Your task to perform on an android device: Open Yahoo.com Image 0: 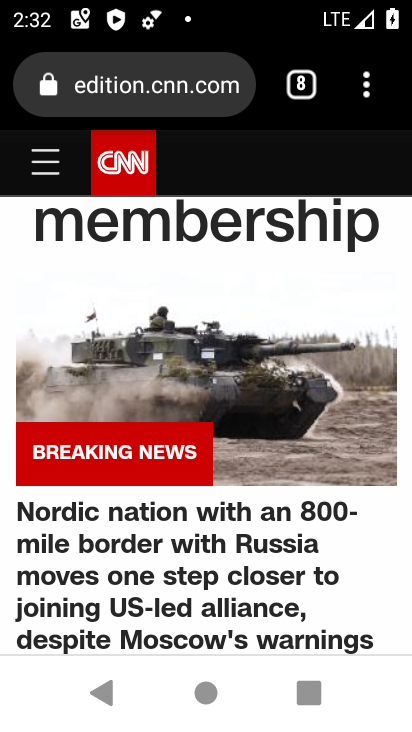
Step 0: click (315, 79)
Your task to perform on an android device: Open Yahoo.com Image 1: 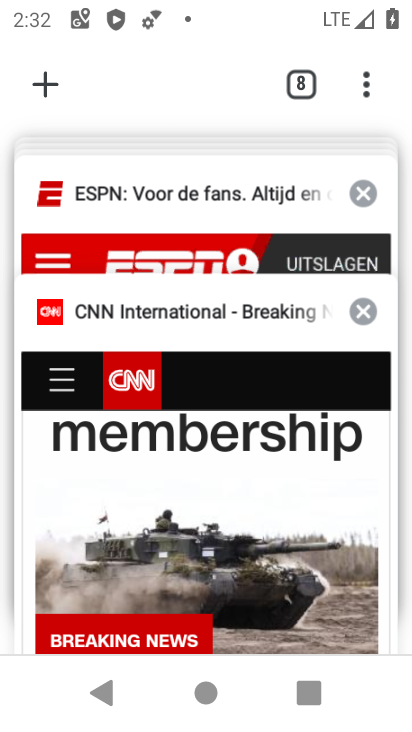
Step 1: drag from (217, 183) to (190, 623)
Your task to perform on an android device: Open Yahoo.com Image 2: 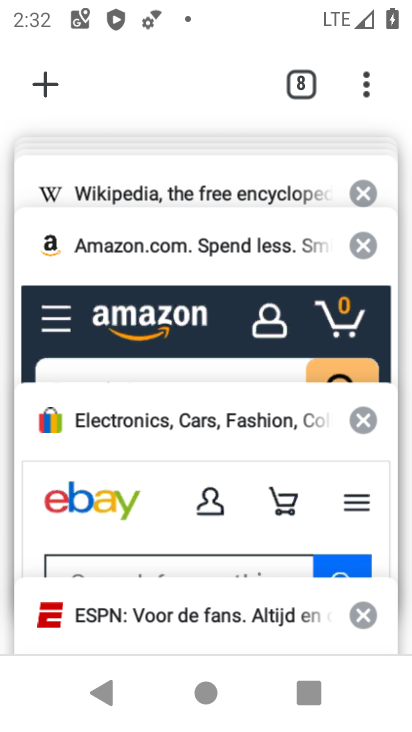
Step 2: drag from (134, 272) to (119, 608)
Your task to perform on an android device: Open Yahoo.com Image 3: 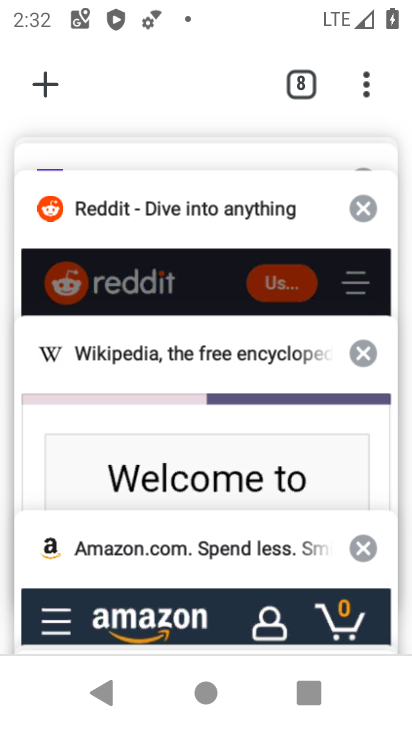
Step 3: drag from (114, 212) to (133, 569)
Your task to perform on an android device: Open Yahoo.com Image 4: 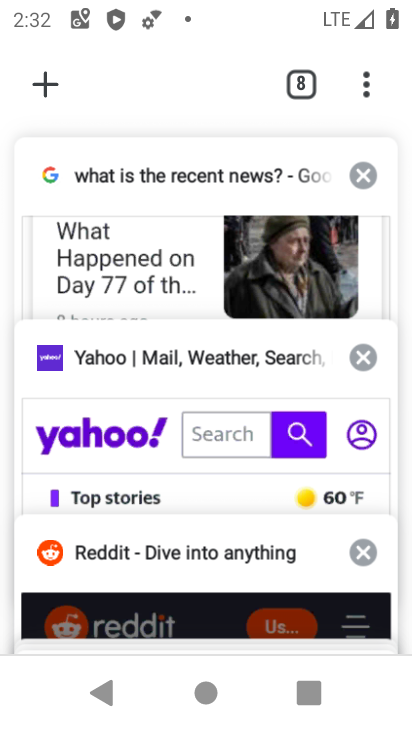
Step 4: click (96, 384)
Your task to perform on an android device: Open Yahoo.com Image 5: 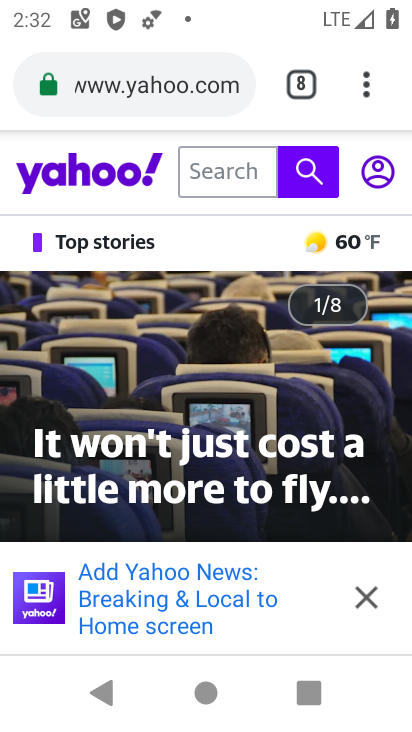
Step 5: task complete